Your task to perform on an android device: install app "LinkedIn" Image 0: 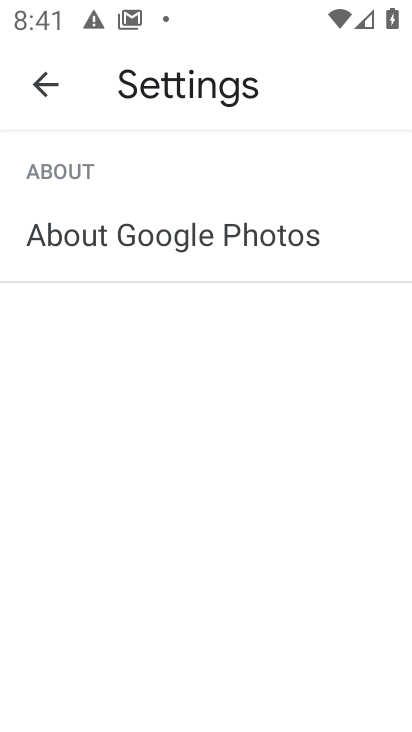
Step 0: press home button
Your task to perform on an android device: install app "LinkedIn" Image 1: 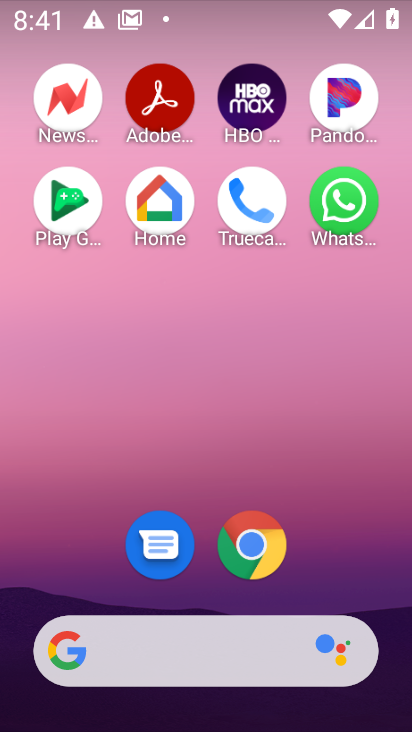
Step 1: drag from (358, 572) to (392, 136)
Your task to perform on an android device: install app "LinkedIn" Image 2: 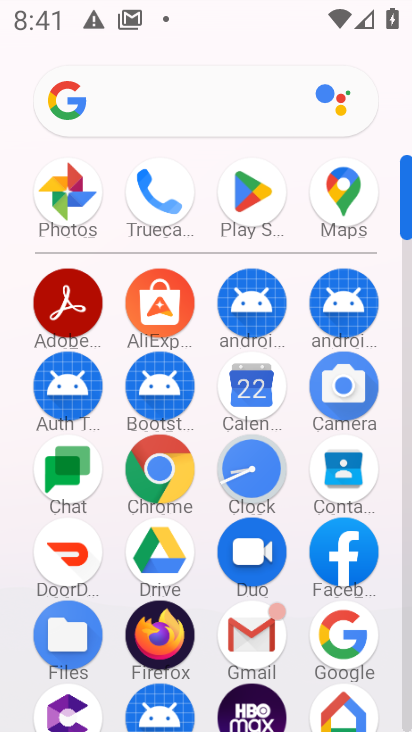
Step 2: click (249, 195)
Your task to perform on an android device: install app "LinkedIn" Image 3: 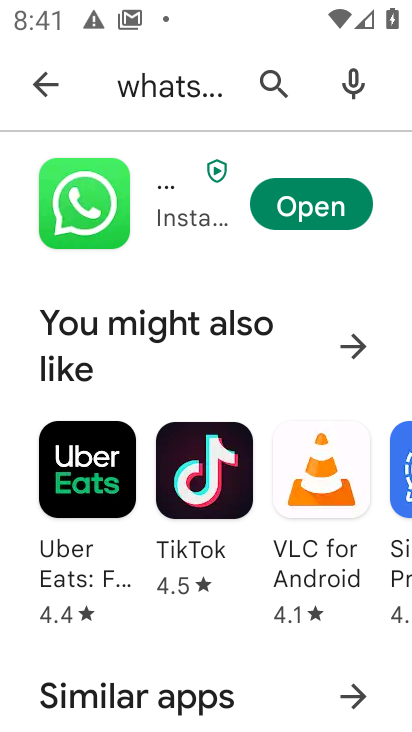
Step 3: press back button
Your task to perform on an android device: install app "LinkedIn" Image 4: 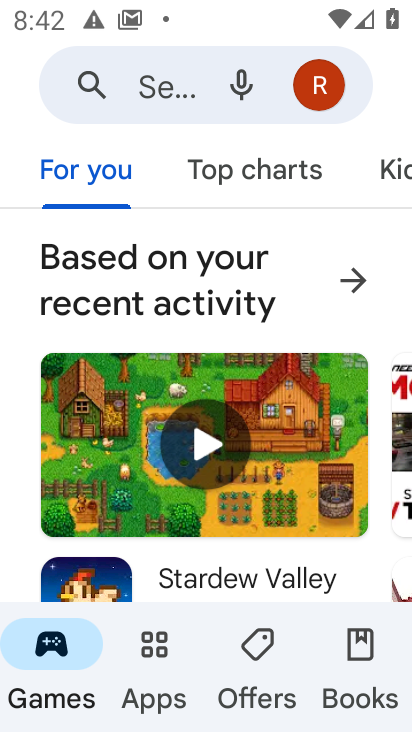
Step 4: click (163, 78)
Your task to perform on an android device: install app "LinkedIn" Image 5: 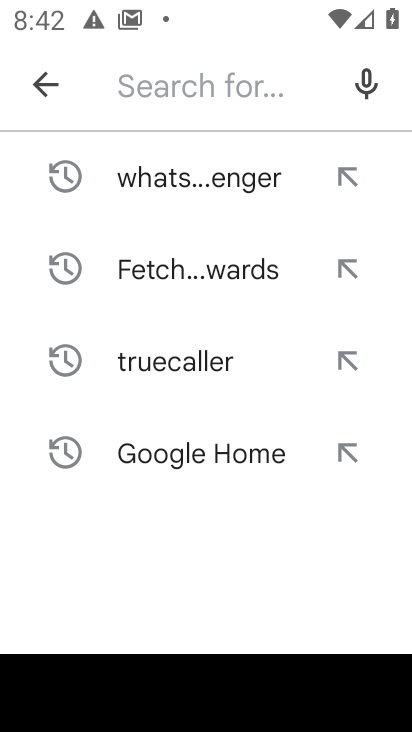
Step 5: press enter
Your task to perform on an android device: install app "LinkedIn" Image 6: 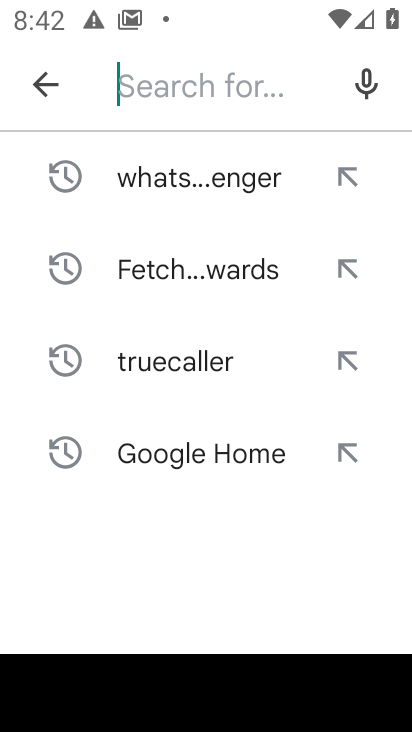
Step 6: type "linkedin"
Your task to perform on an android device: install app "LinkedIn" Image 7: 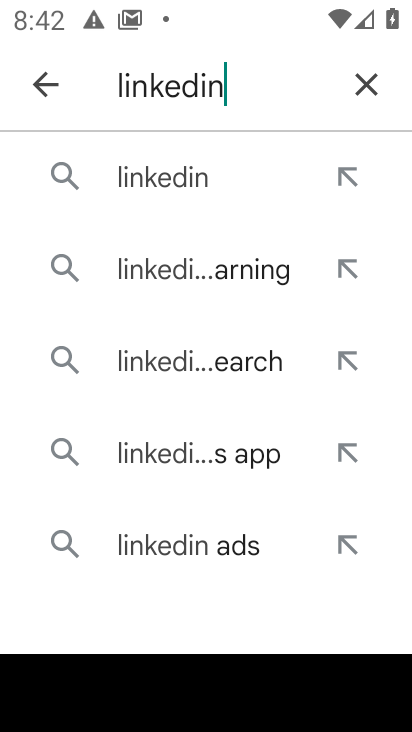
Step 7: click (218, 182)
Your task to perform on an android device: install app "LinkedIn" Image 8: 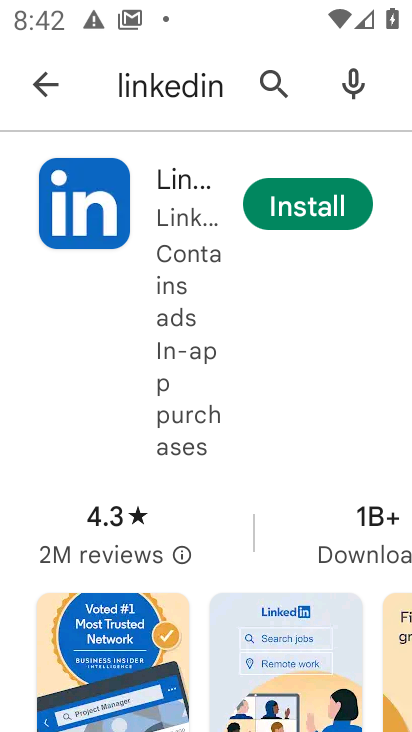
Step 8: click (299, 207)
Your task to perform on an android device: install app "LinkedIn" Image 9: 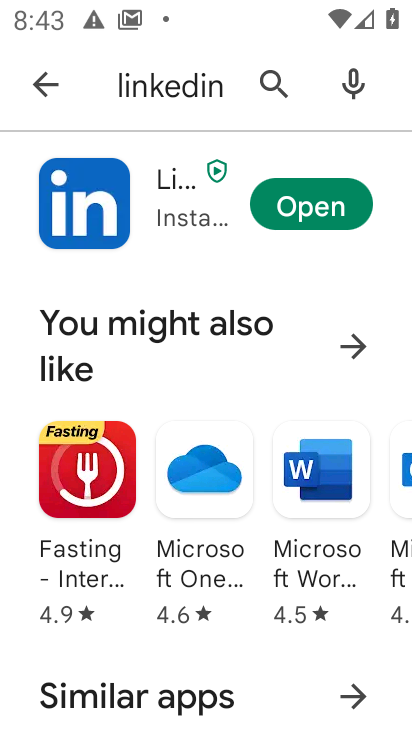
Step 9: task complete